Your task to perform on an android device: turn off location Image 0: 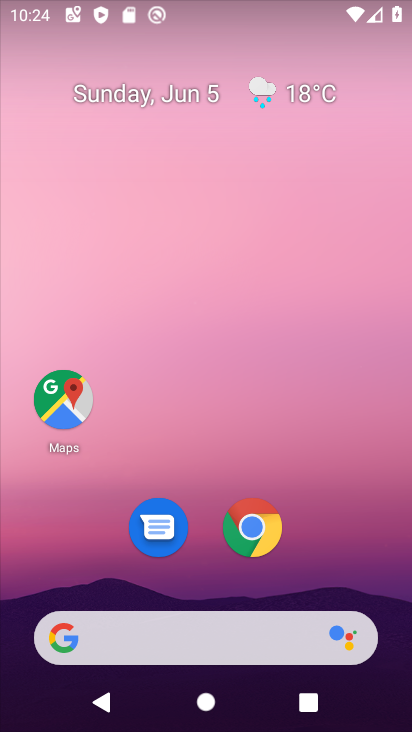
Step 0: click (252, 118)
Your task to perform on an android device: turn off location Image 1: 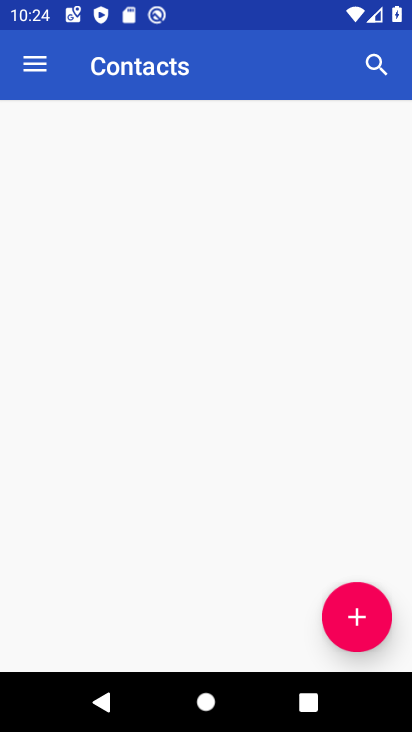
Step 1: press home button
Your task to perform on an android device: turn off location Image 2: 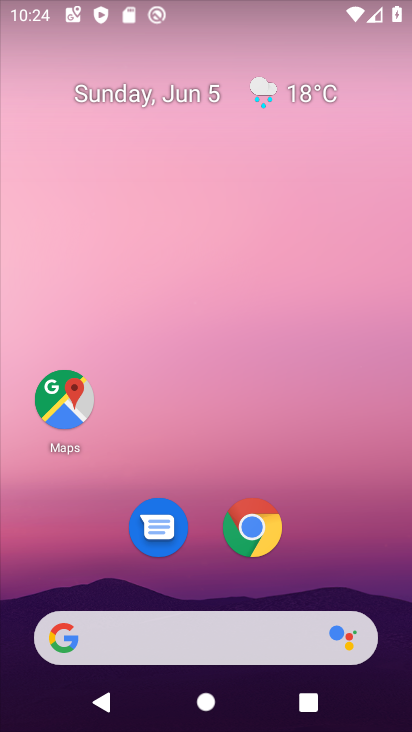
Step 2: drag from (348, 537) to (248, 8)
Your task to perform on an android device: turn off location Image 3: 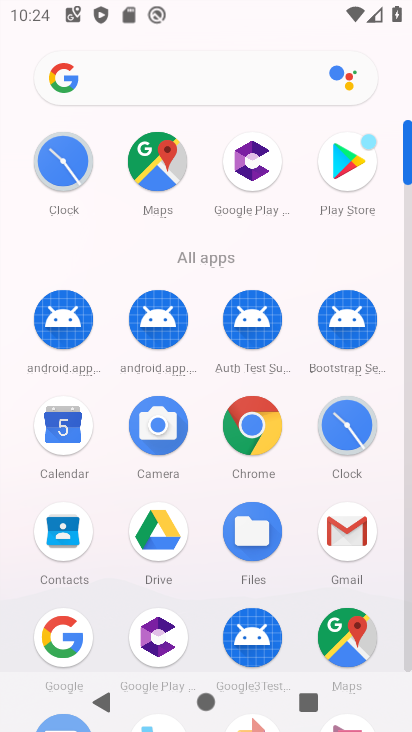
Step 3: drag from (141, 494) to (166, 112)
Your task to perform on an android device: turn off location Image 4: 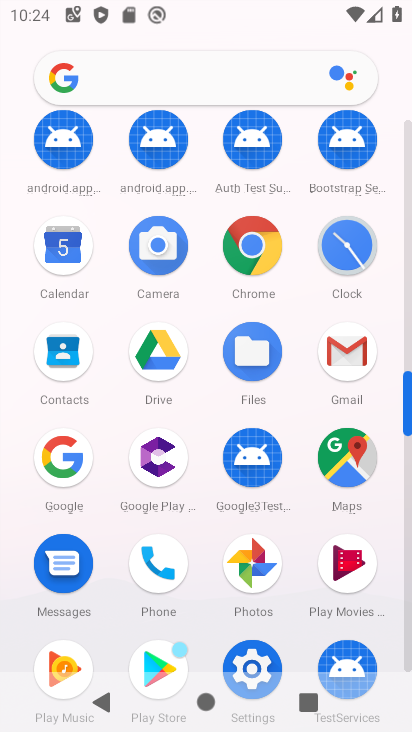
Step 4: click (261, 647)
Your task to perform on an android device: turn off location Image 5: 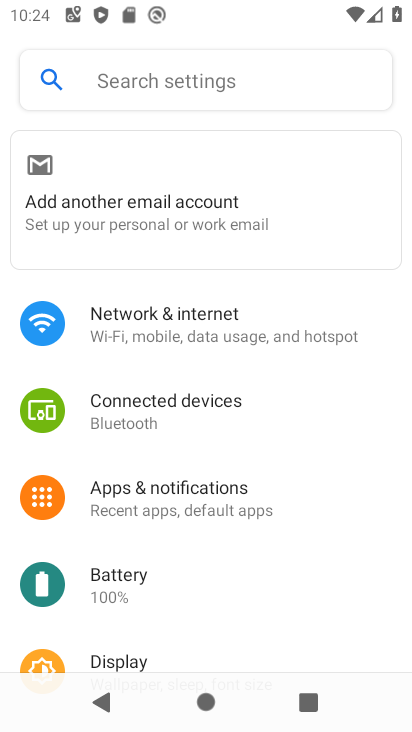
Step 5: drag from (296, 362) to (290, 70)
Your task to perform on an android device: turn off location Image 6: 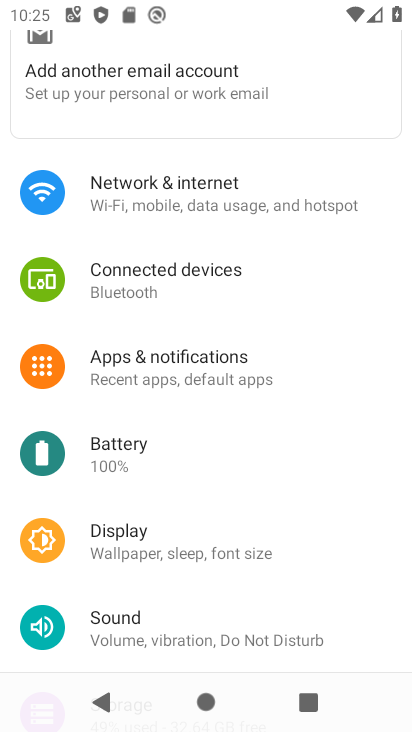
Step 6: drag from (253, 605) to (270, 168)
Your task to perform on an android device: turn off location Image 7: 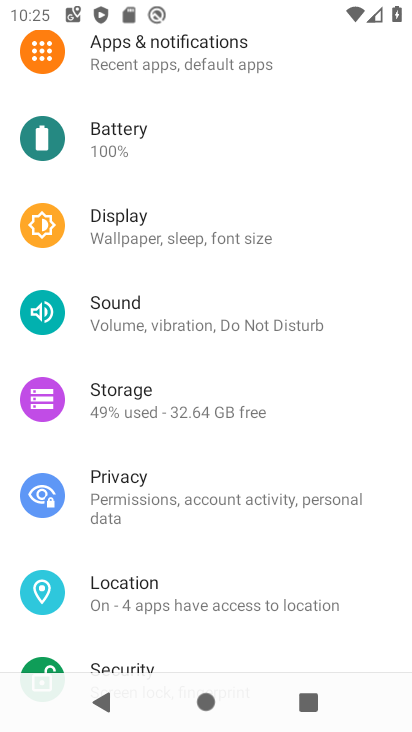
Step 7: click (184, 598)
Your task to perform on an android device: turn off location Image 8: 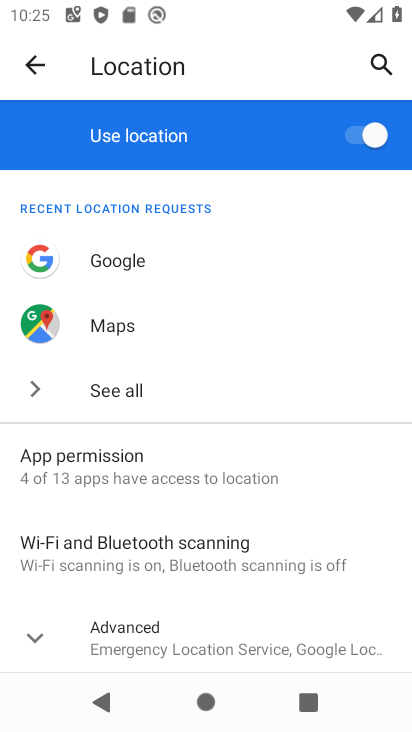
Step 8: drag from (265, 544) to (272, 197)
Your task to perform on an android device: turn off location Image 9: 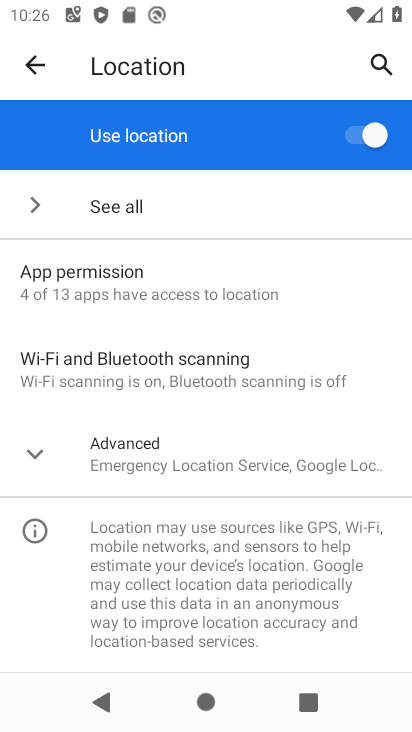
Step 9: click (356, 122)
Your task to perform on an android device: turn off location Image 10: 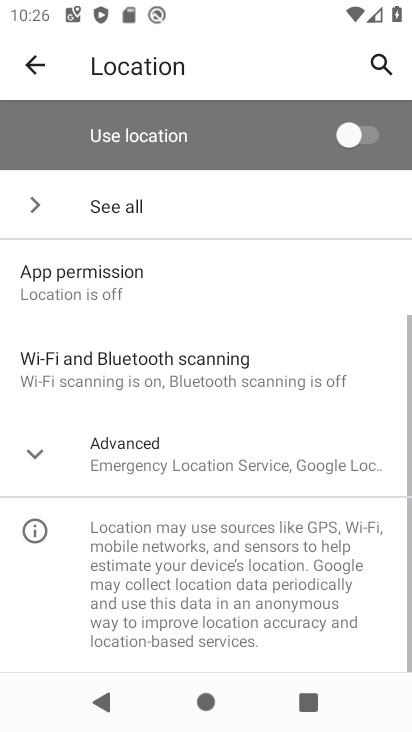
Step 10: task complete